Your task to perform on an android device: turn on notifications settings in the gmail app Image 0: 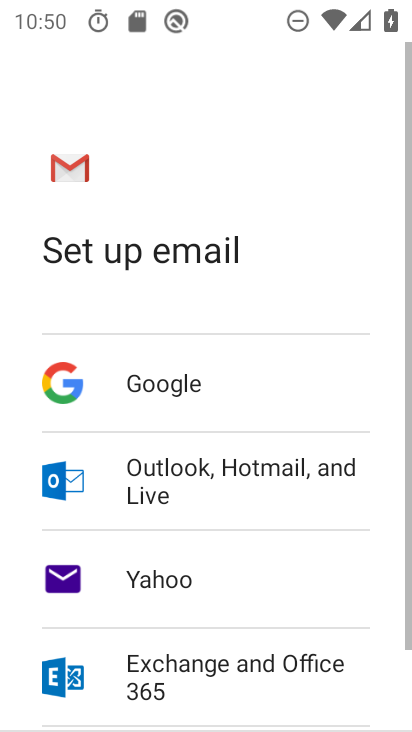
Step 0: press home button
Your task to perform on an android device: turn on notifications settings in the gmail app Image 1: 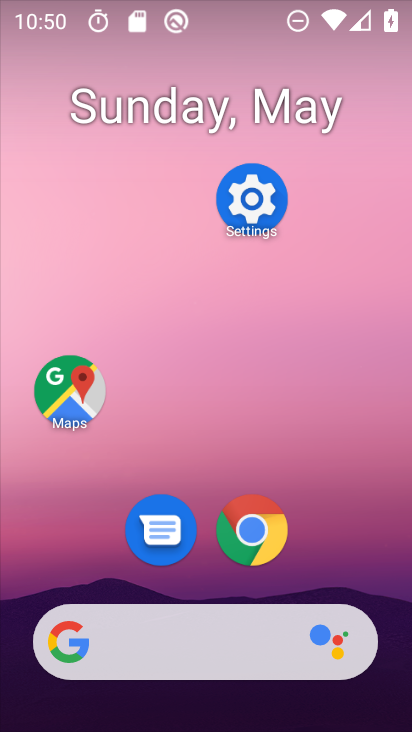
Step 1: drag from (281, 630) to (197, 68)
Your task to perform on an android device: turn on notifications settings in the gmail app Image 2: 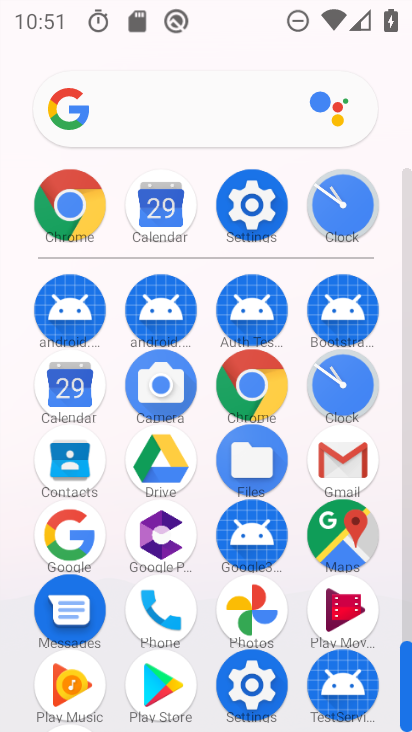
Step 2: click (334, 478)
Your task to perform on an android device: turn on notifications settings in the gmail app Image 3: 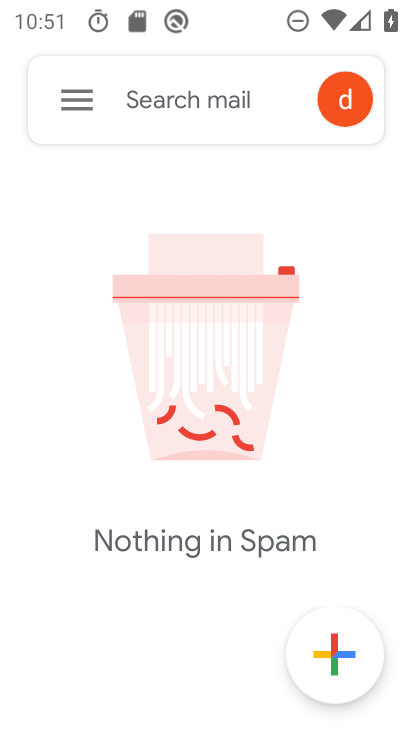
Step 3: click (88, 104)
Your task to perform on an android device: turn on notifications settings in the gmail app Image 4: 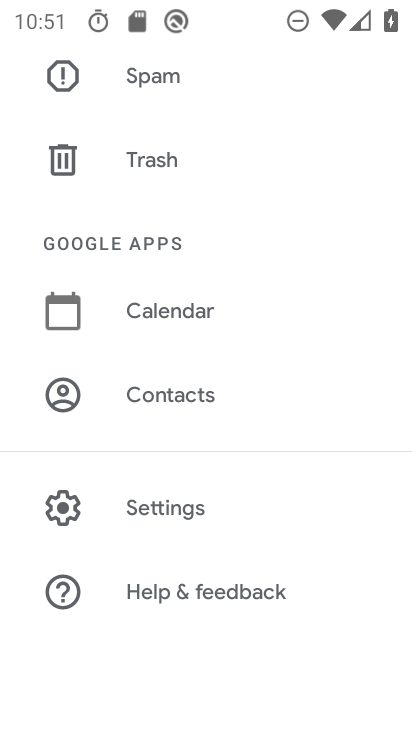
Step 4: click (157, 490)
Your task to perform on an android device: turn on notifications settings in the gmail app Image 5: 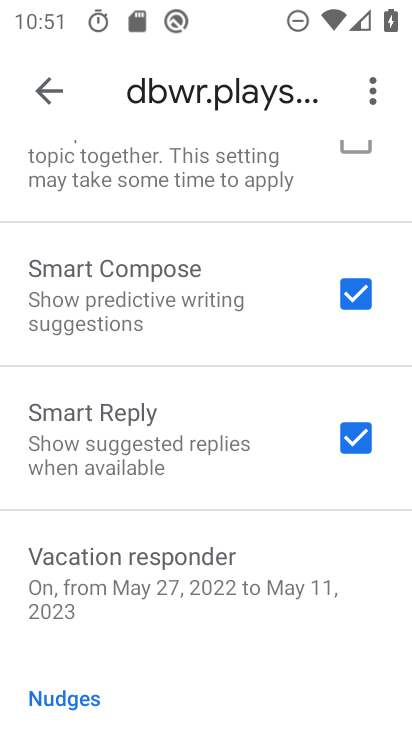
Step 5: drag from (190, 388) to (147, 705)
Your task to perform on an android device: turn on notifications settings in the gmail app Image 6: 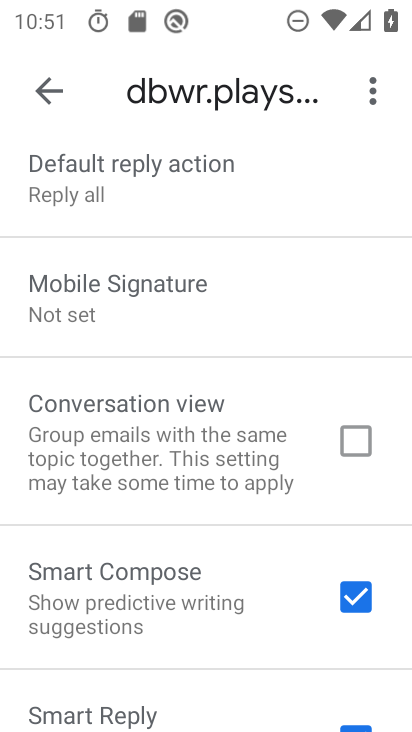
Step 6: drag from (171, 209) to (111, 573)
Your task to perform on an android device: turn on notifications settings in the gmail app Image 7: 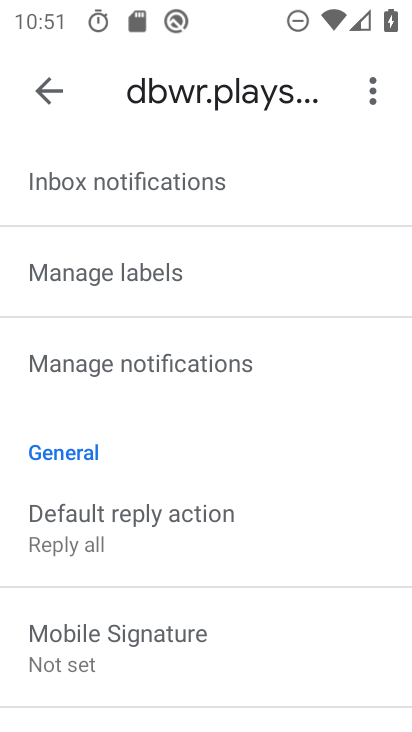
Step 7: drag from (133, 196) to (117, 345)
Your task to perform on an android device: turn on notifications settings in the gmail app Image 8: 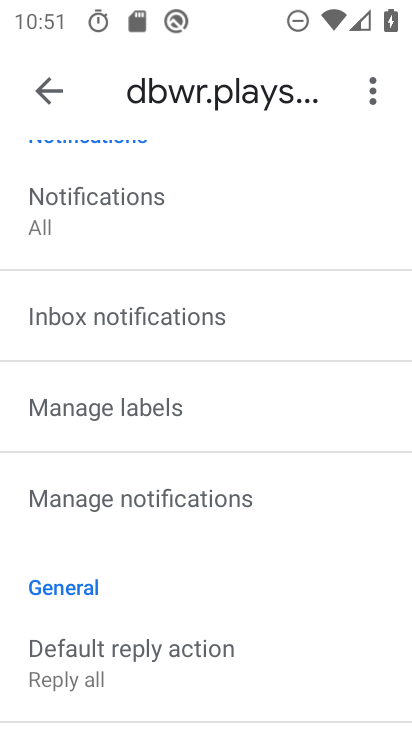
Step 8: click (146, 236)
Your task to perform on an android device: turn on notifications settings in the gmail app Image 9: 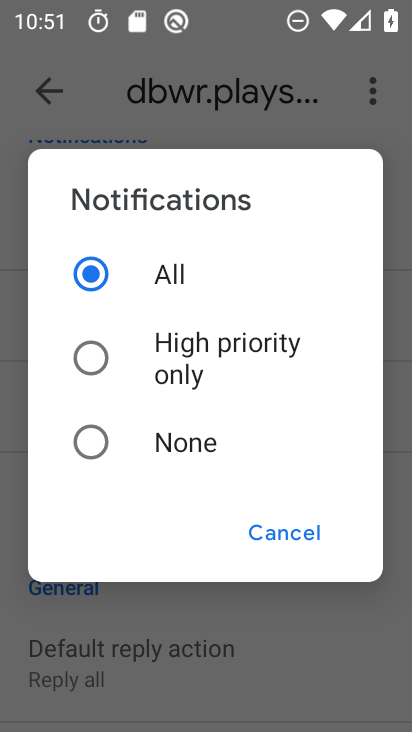
Step 9: task complete